Your task to perform on an android device: turn pop-ups off in chrome Image 0: 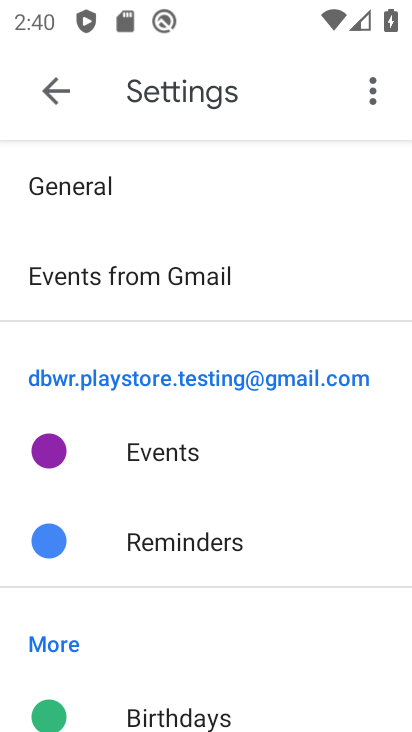
Step 0: press home button
Your task to perform on an android device: turn pop-ups off in chrome Image 1: 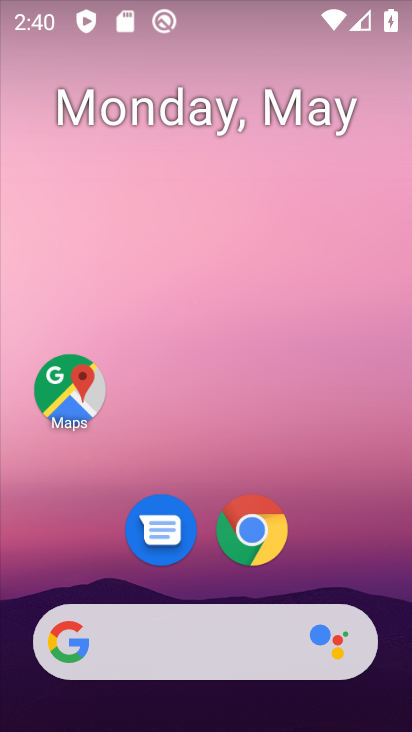
Step 1: click (261, 522)
Your task to perform on an android device: turn pop-ups off in chrome Image 2: 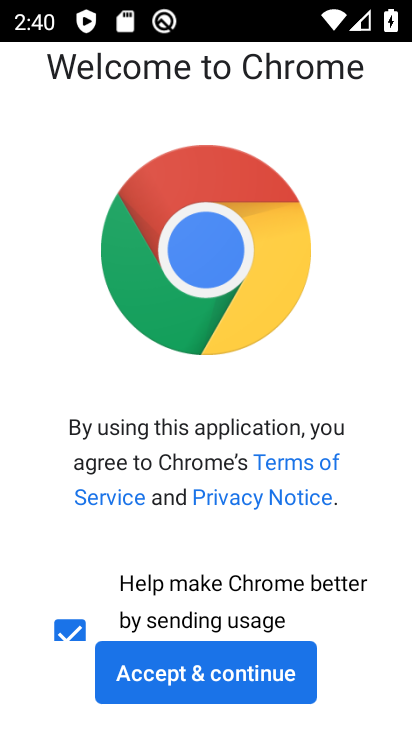
Step 2: click (175, 674)
Your task to perform on an android device: turn pop-ups off in chrome Image 3: 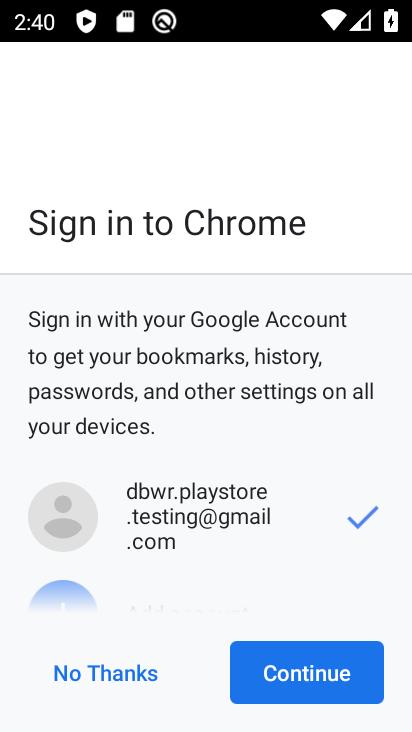
Step 3: click (242, 675)
Your task to perform on an android device: turn pop-ups off in chrome Image 4: 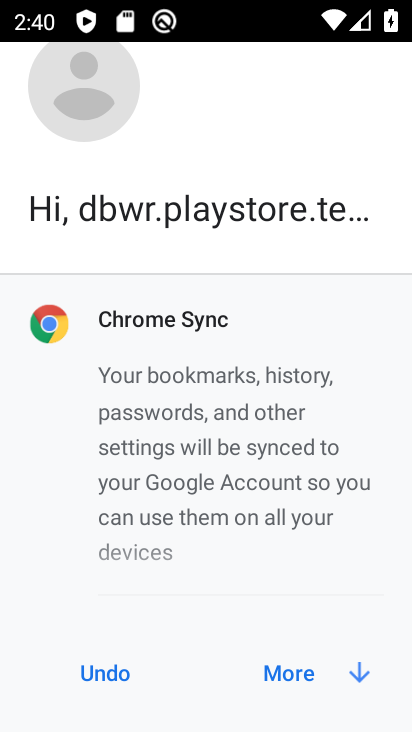
Step 4: click (262, 674)
Your task to perform on an android device: turn pop-ups off in chrome Image 5: 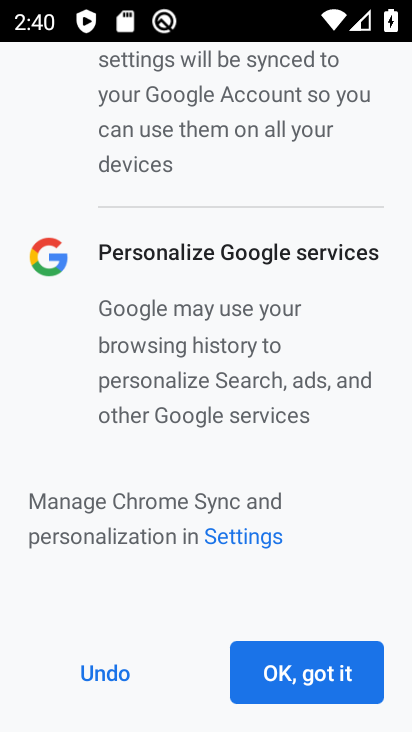
Step 5: click (262, 674)
Your task to perform on an android device: turn pop-ups off in chrome Image 6: 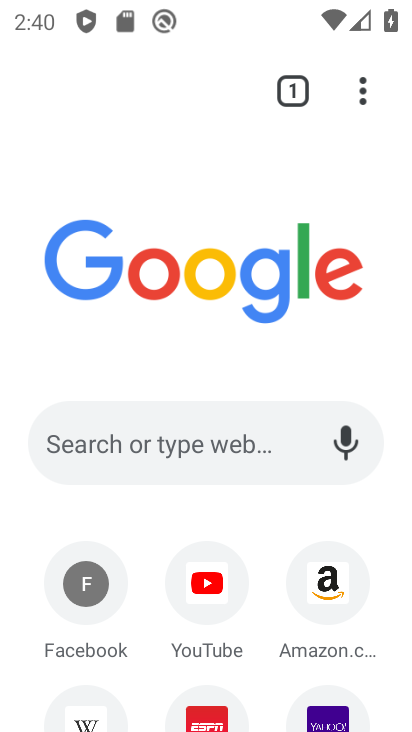
Step 6: click (389, 98)
Your task to perform on an android device: turn pop-ups off in chrome Image 7: 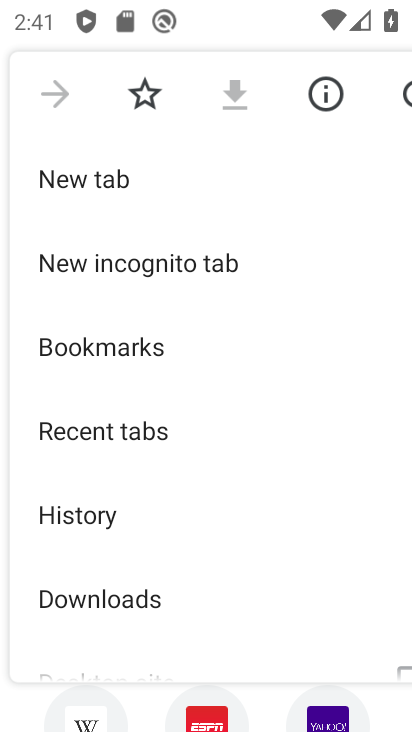
Step 7: drag from (116, 626) to (166, 128)
Your task to perform on an android device: turn pop-ups off in chrome Image 8: 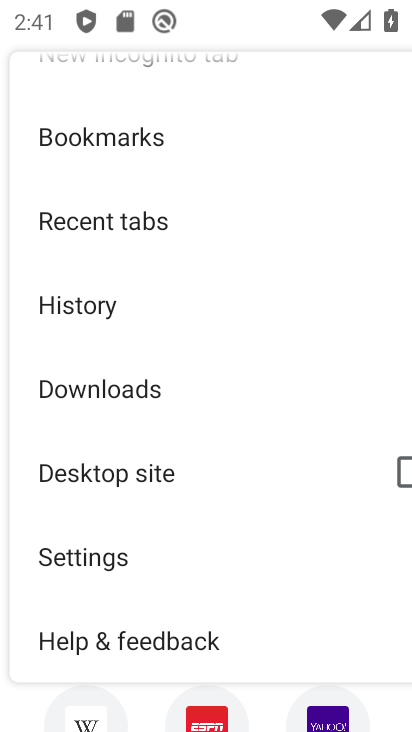
Step 8: click (124, 568)
Your task to perform on an android device: turn pop-ups off in chrome Image 9: 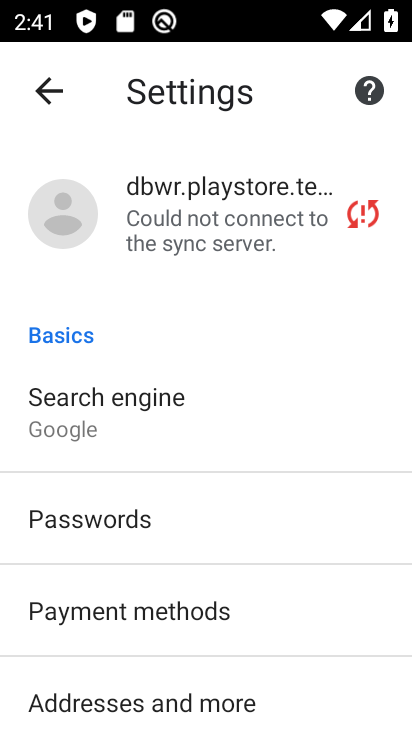
Step 9: drag from (188, 693) to (178, 352)
Your task to perform on an android device: turn pop-ups off in chrome Image 10: 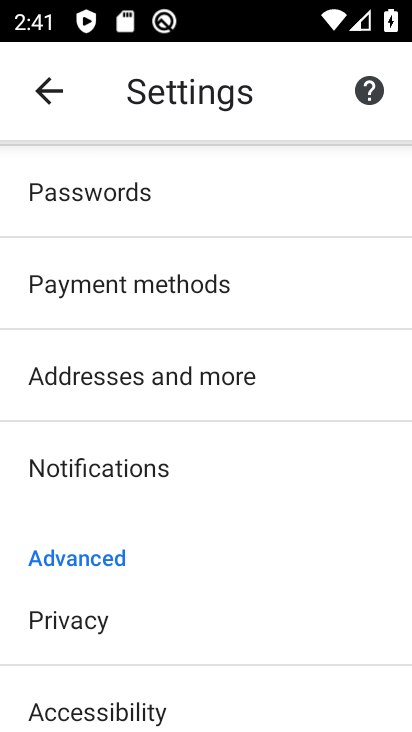
Step 10: click (193, 189)
Your task to perform on an android device: turn pop-ups off in chrome Image 11: 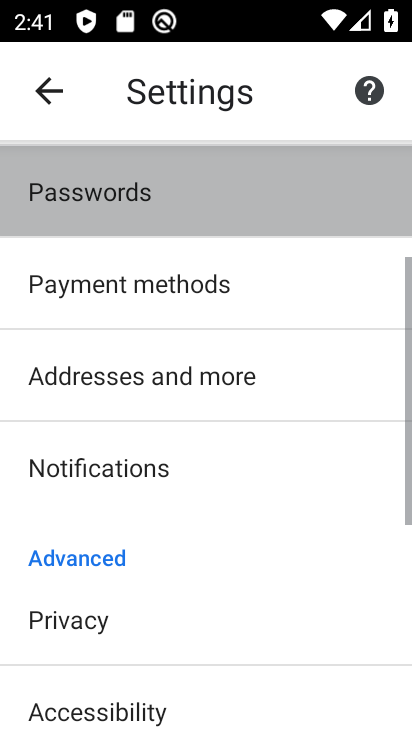
Step 11: drag from (149, 476) to (201, 127)
Your task to perform on an android device: turn pop-ups off in chrome Image 12: 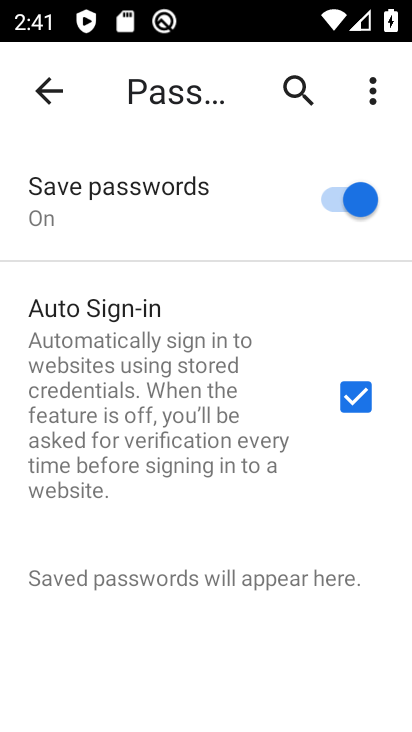
Step 12: click (56, 97)
Your task to perform on an android device: turn pop-ups off in chrome Image 13: 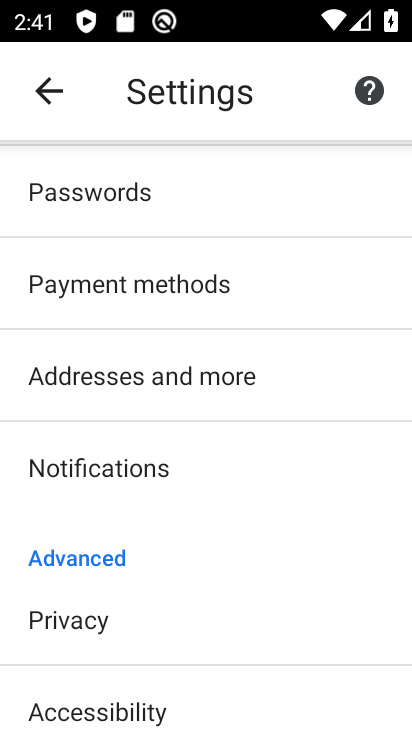
Step 13: drag from (168, 645) to (296, 210)
Your task to perform on an android device: turn pop-ups off in chrome Image 14: 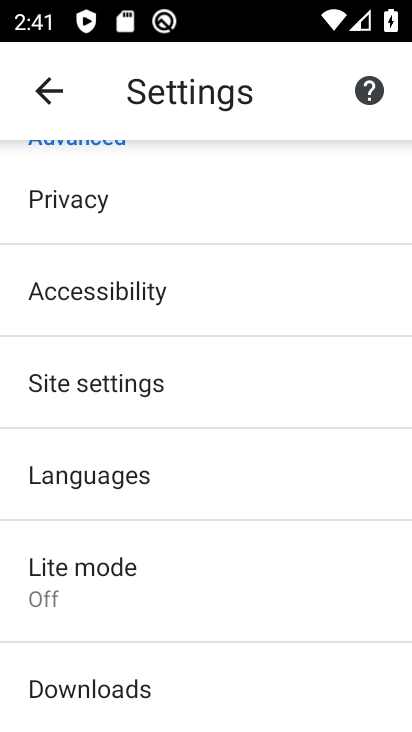
Step 14: click (90, 547)
Your task to perform on an android device: turn pop-ups off in chrome Image 15: 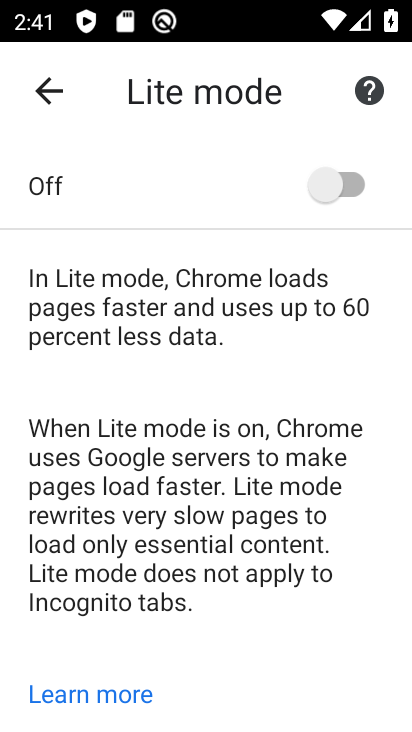
Step 15: task complete